Your task to perform on an android device: turn on sleep mode Image 0: 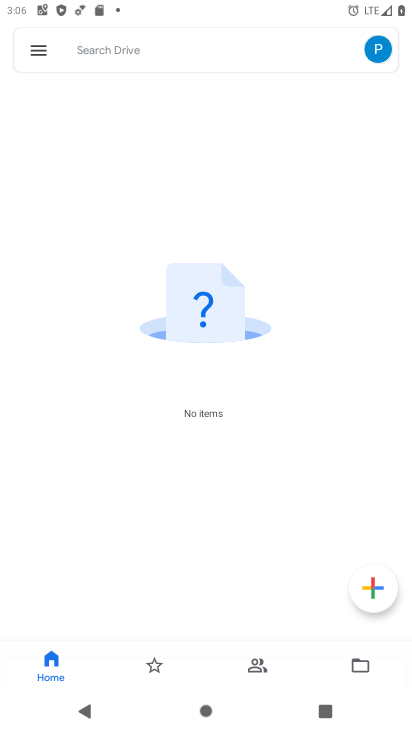
Step 0: press home button
Your task to perform on an android device: turn on sleep mode Image 1: 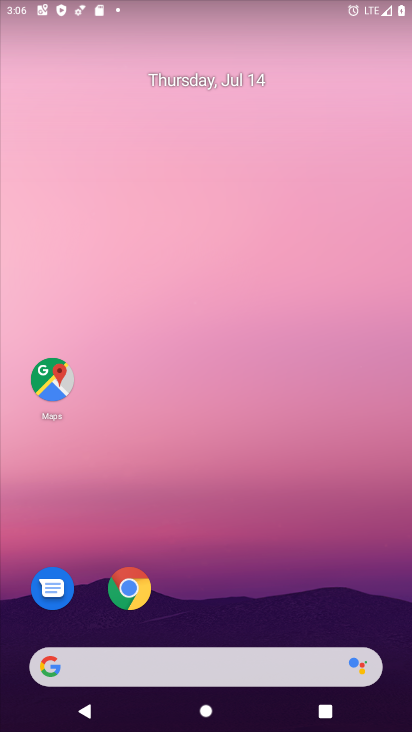
Step 1: drag from (222, 580) to (277, 189)
Your task to perform on an android device: turn on sleep mode Image 2: 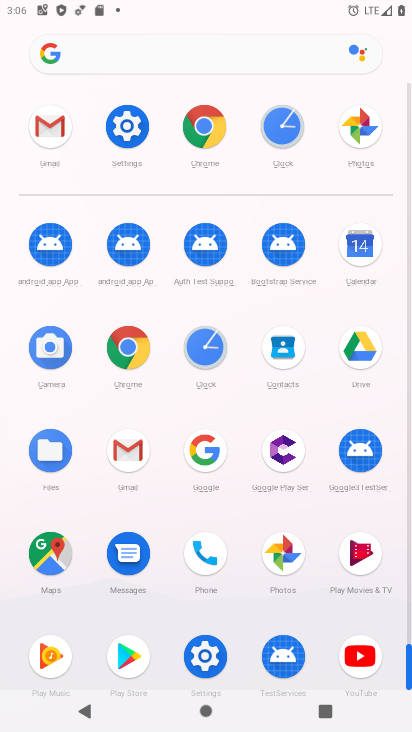
Step 2: click (132, 136)
Your task to perform on an android device: turn on sleep mode Image 3: 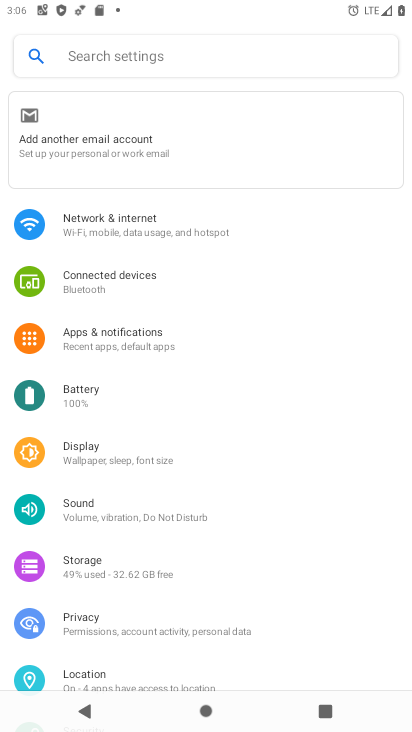
Step 3: task complete